Your task to perform on an android device: toggle priority inbox in the gmail app Image 0: 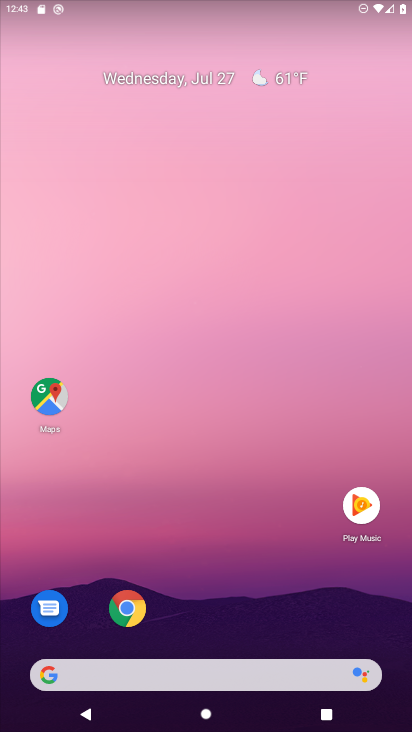
Step 0: press home button
Your task to perform on an android device: toggle priority inbox in the gmail app Image 1: 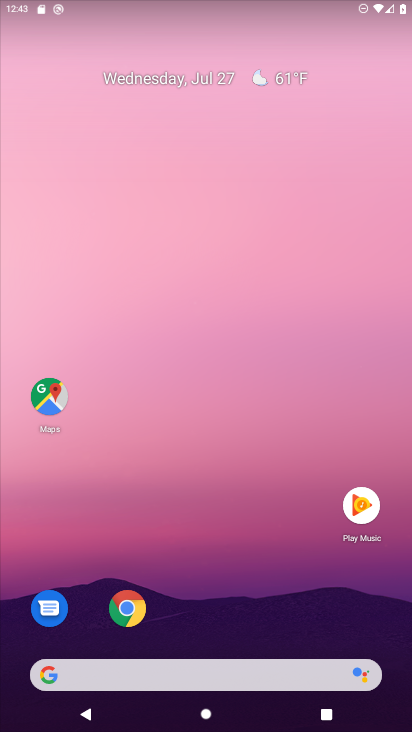
Step 1: click (298, 221)
Your task to perform on an android device: toggle priority inbox in the gmail app Image 2: 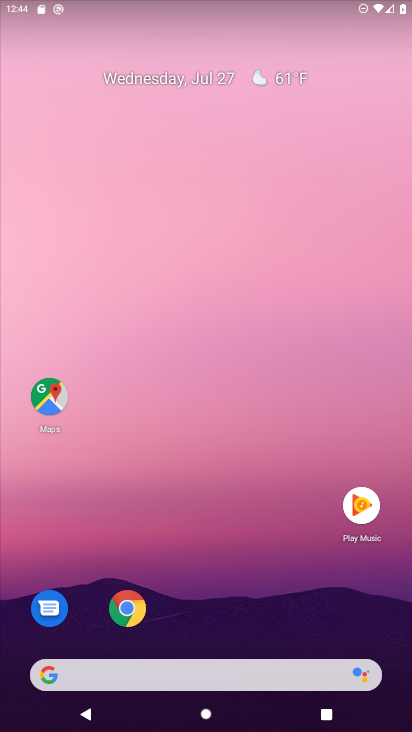
Step 2: drag from (294, 606) to (311, 292)
Your task to perform on an android device: toggle priority inbox in the gmail app Image 3: 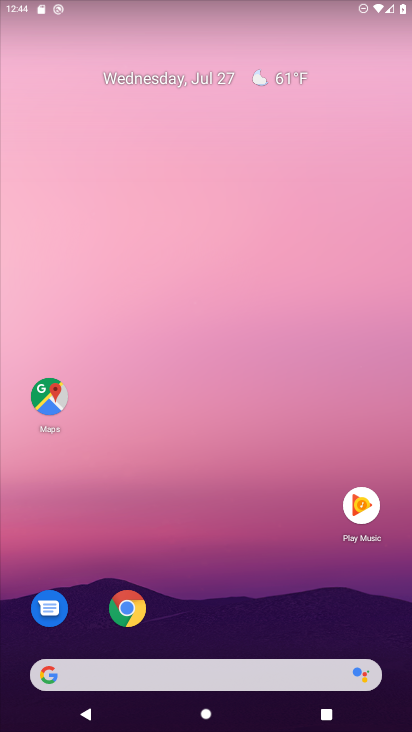
Step 3: drag from (295, 585) to (329, 112)
Your task to perform on an android device: toggle priority inbox in the gmail app Image 4: 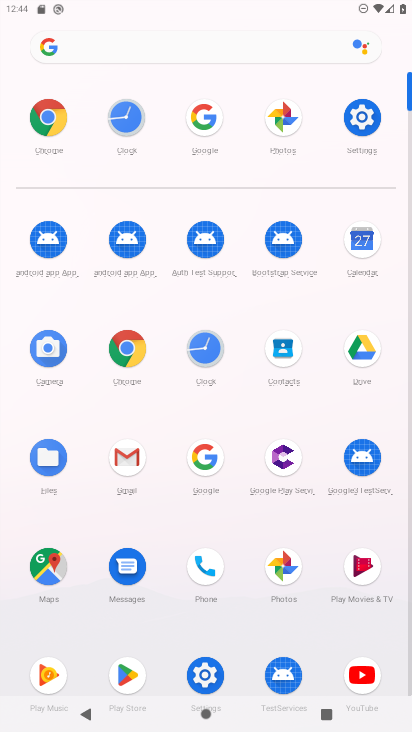
Step 4: click (123, 467)
Your task to perform on an android device: toggle priority inbox in the gmail app Image 5: 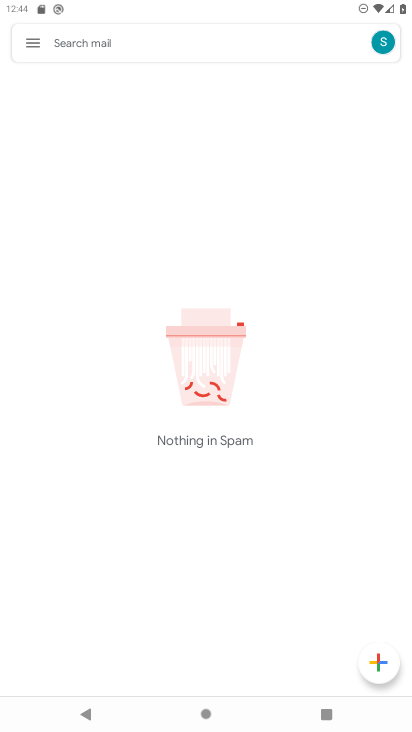
Step 5: click (29, 37)
Your task to perform on an android device: toggle priority inbox in the gmail app Image 6: 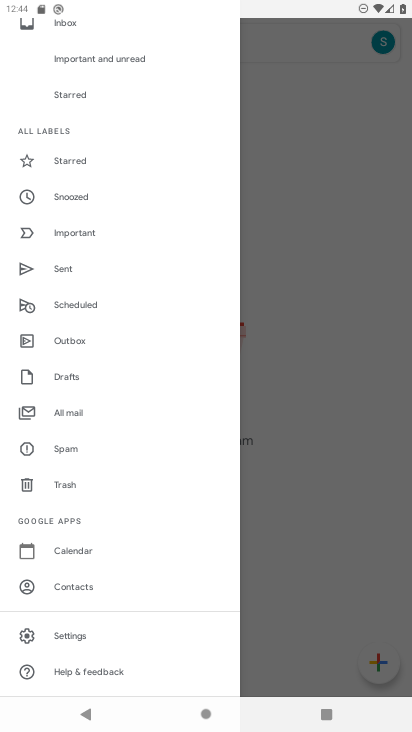
Step 6: drag from (168, 434) to (167, 383)
Your task to perform on an android device: toggle priority inbox in the gmail app Image 7: 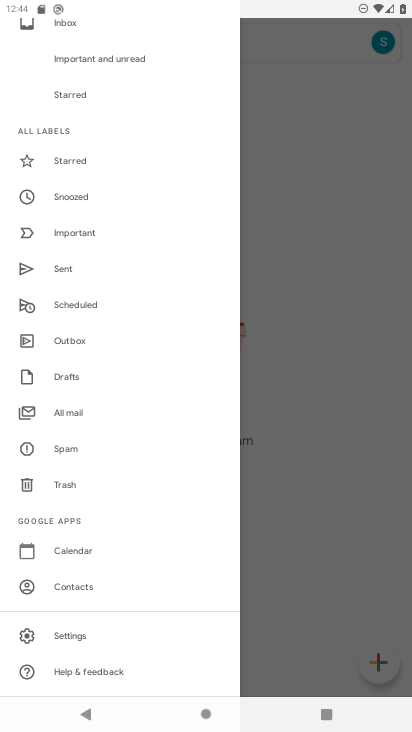
Step 7: click (138, 629)
Your task to perform on an android device: toggle priority inbox in the gmail app Image 8: 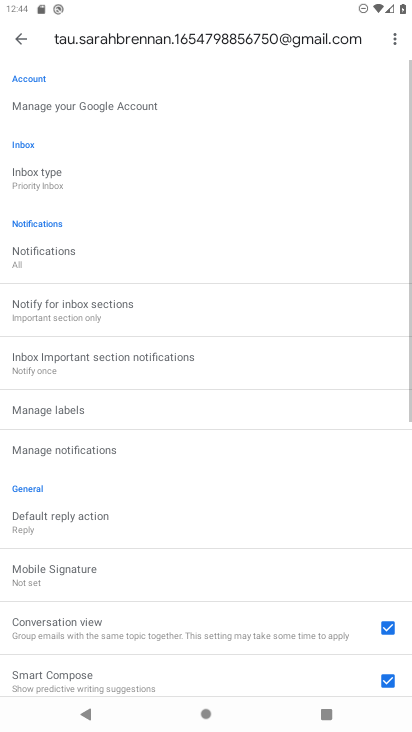
Step 8: drag from (248, 491) to (251, 419)
Your task to perform on an android device: toggle priority inbox in the gmail app Image 9: 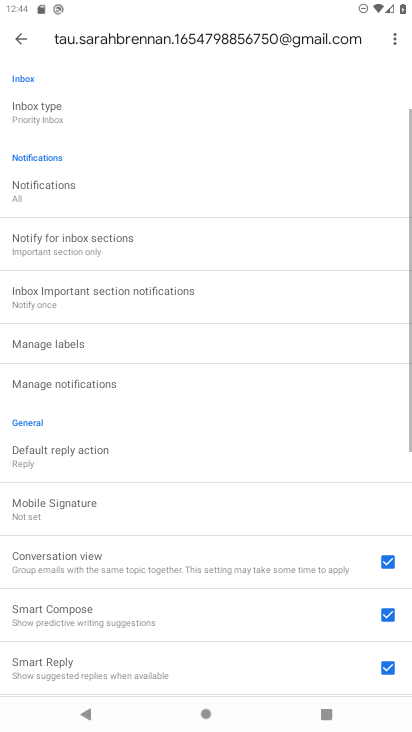
Step 9: drag from (249, 551) to (247, 468)
Your task to perform on an android device: toggle priority inbox in the gmail app Image 10: 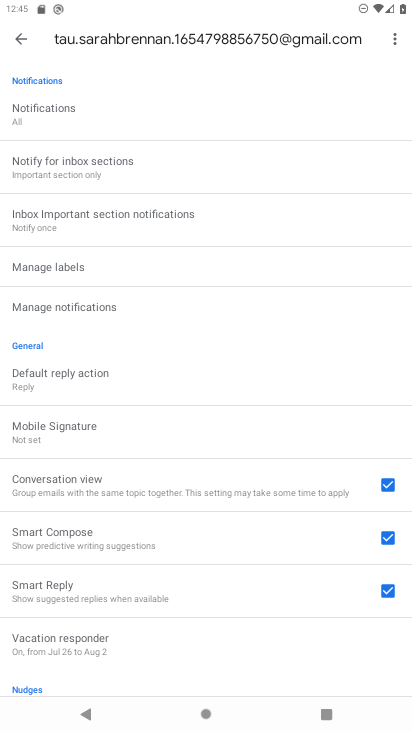
Step 10: drag from (247, 560) to (247, 474)
Your task to perform on an android device: toggle priority inbox in the gmail app Image 11: 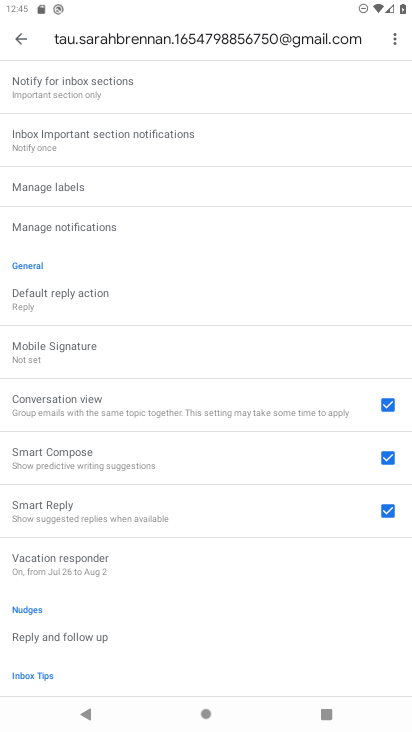
Step 11: drag from (241, 587) to (242, 489)
Your task to perform on an android device: toggle priority inbox in the gmail app Image 12: 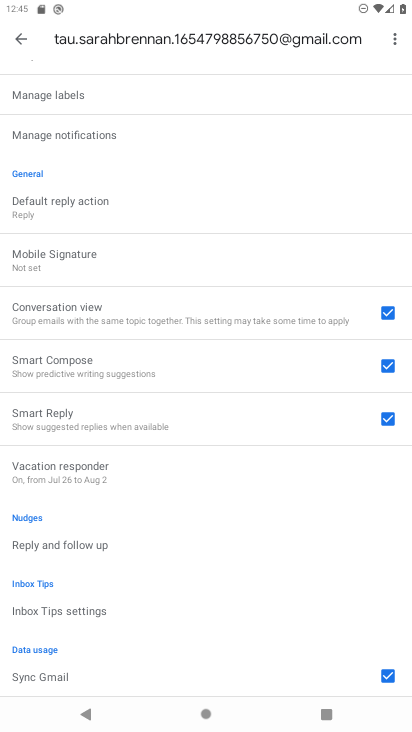
Step 12: drag from (281, 267) to (282, 321)
Your task to perform on an android device: toggle priority inbox in the gmail app Image 13: 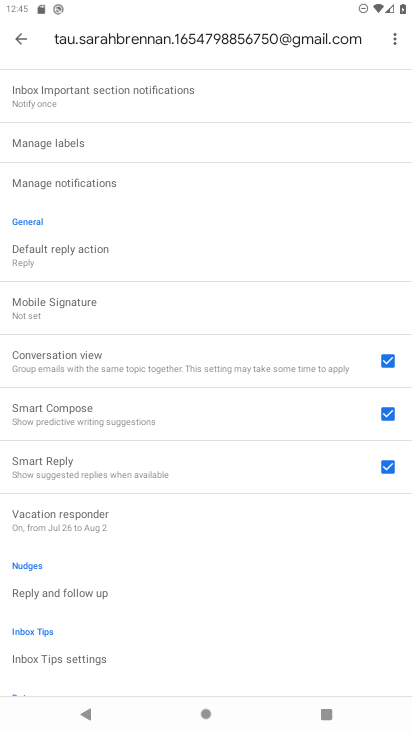
Step 13: drag from (269, 353) to (264, 432)
Your task to perform on an android device: toggle priority inbox in the gmail app Image 14: 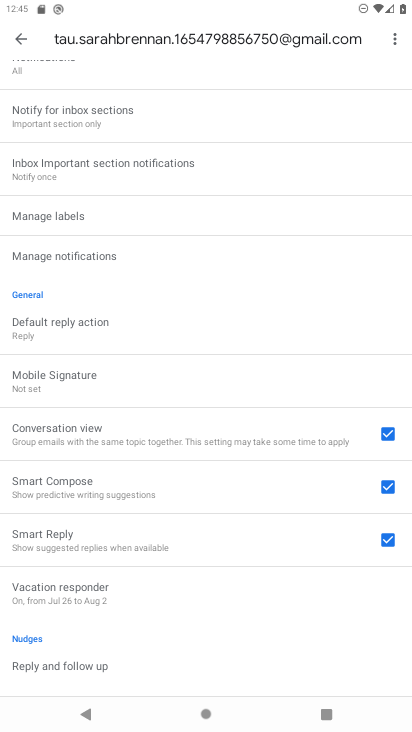
Step 14: drag from (286, 328) to (278, 408)
Your task to perform on an android device: toggle priority inbox in the gmail app Image 15: 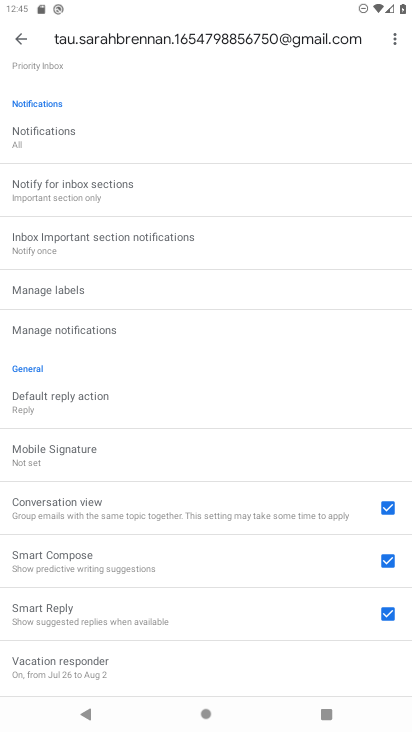
Step 15: drag from (289, 322) to (282, 419)
Your task to perform on an android device: toggle priority inbox in the gmail app Image 16: 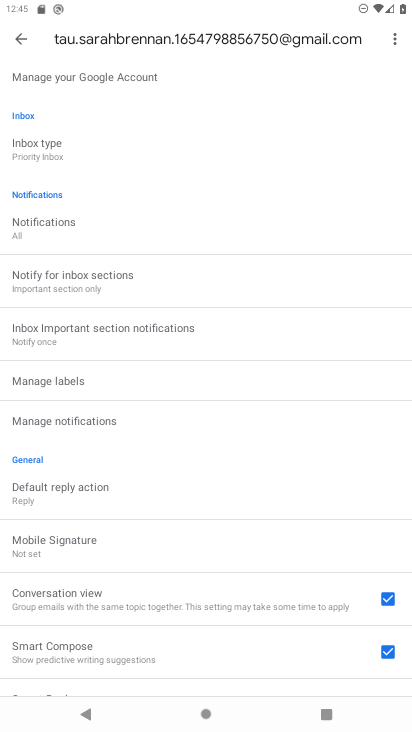
Step 16: drag from (290, 323) to (281, 488)
Your task to perform on an android device: toggle priority inbox in the gmail app Image 17: 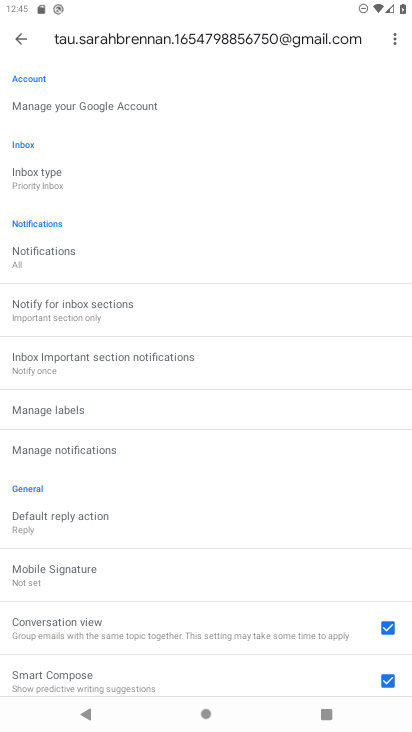
Step 17: click (58, 173)
Your task to perform on an android device: toggle priority inbox in the gmail app Image 18: 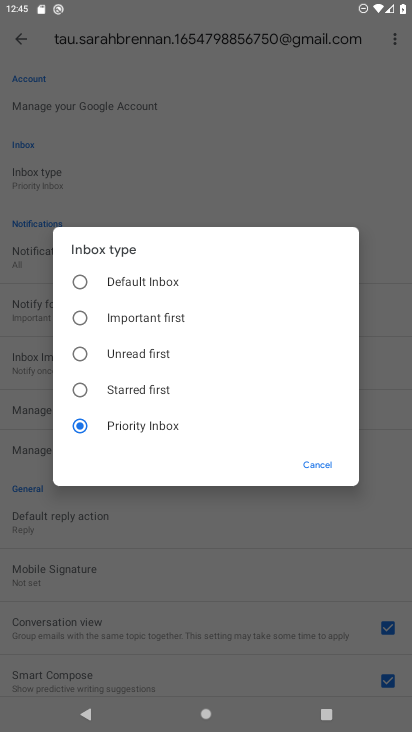
Step 18: task complete